Your task to perform on an android device: open app "Google Play Games" (install if not already installed) Image 0: 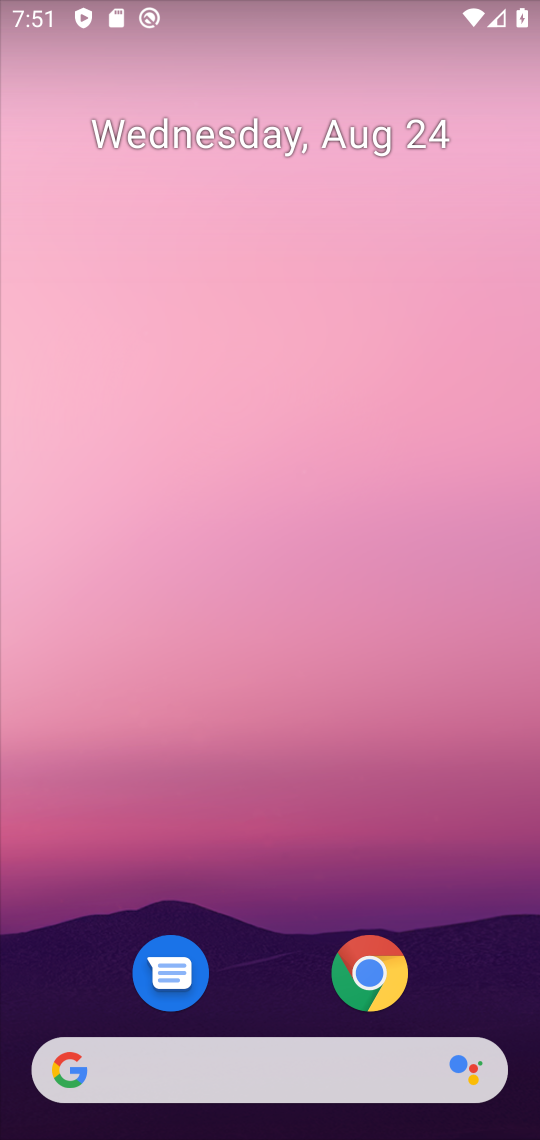
Step 0: drag from (239, 841) to (238, 169)
Your task to perform on an android device: open app "Google Play Games" (install if not already installed) Image 1: 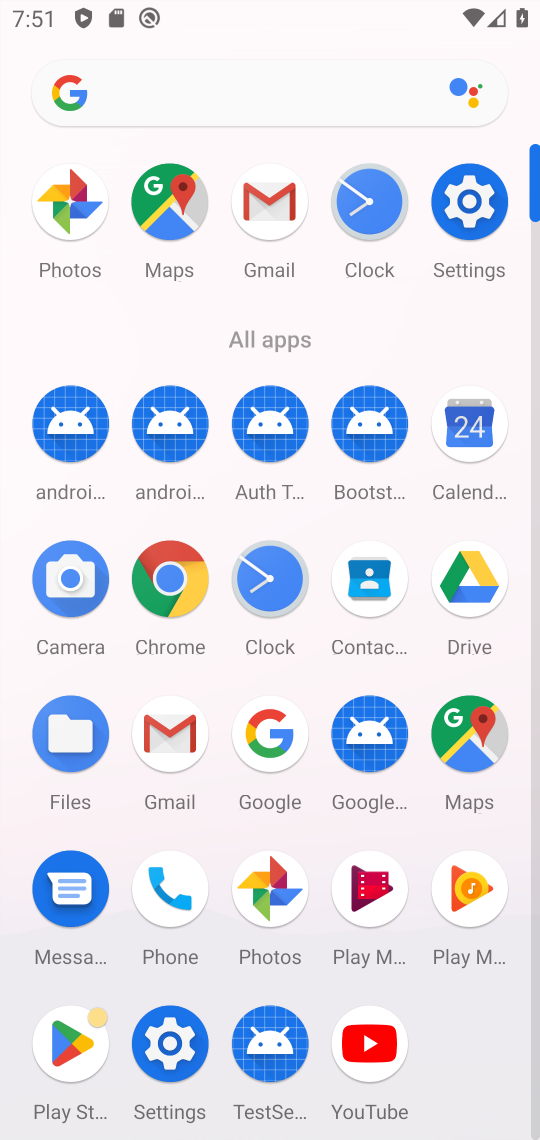
Step 1: click (74, 1044)
Your task to perform on an android device: open app "Google Play Games" (install if not already installed) Image 2: 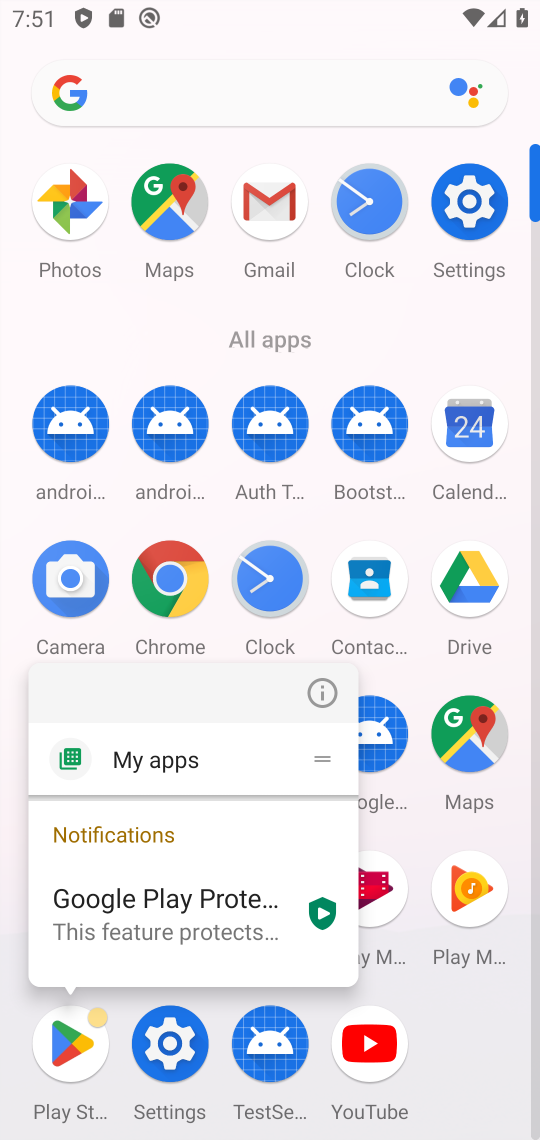
Step 2: click (60, 1072)
Your task to perform on an android device: open app "Google Play Games" (install if not already installed) Image 3: 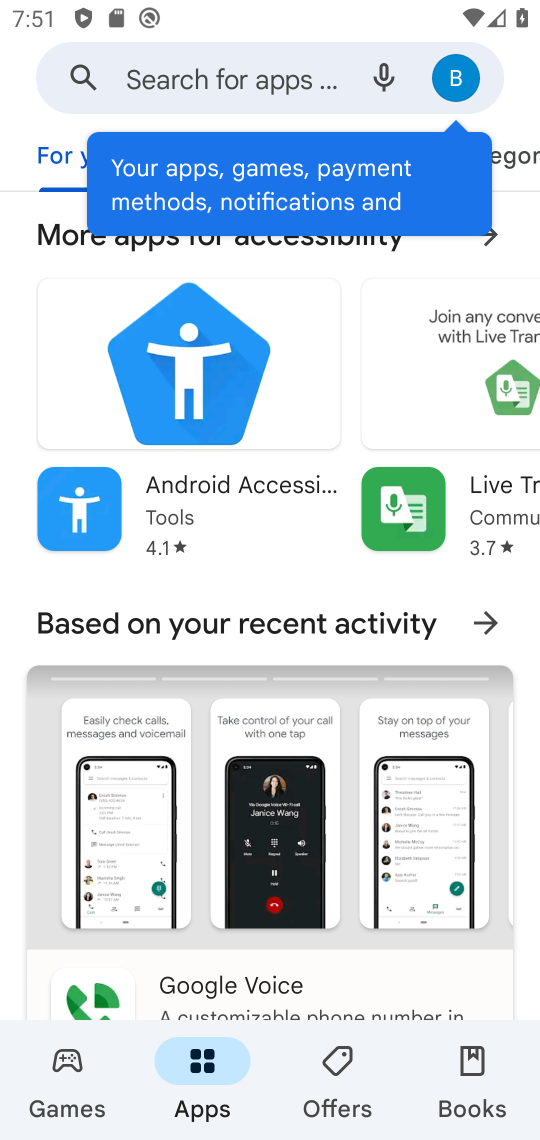
Step 3: click (207, 67)
Your task to perform on an android device: open app "Google Play Games" (install if not already installed) Image 4: 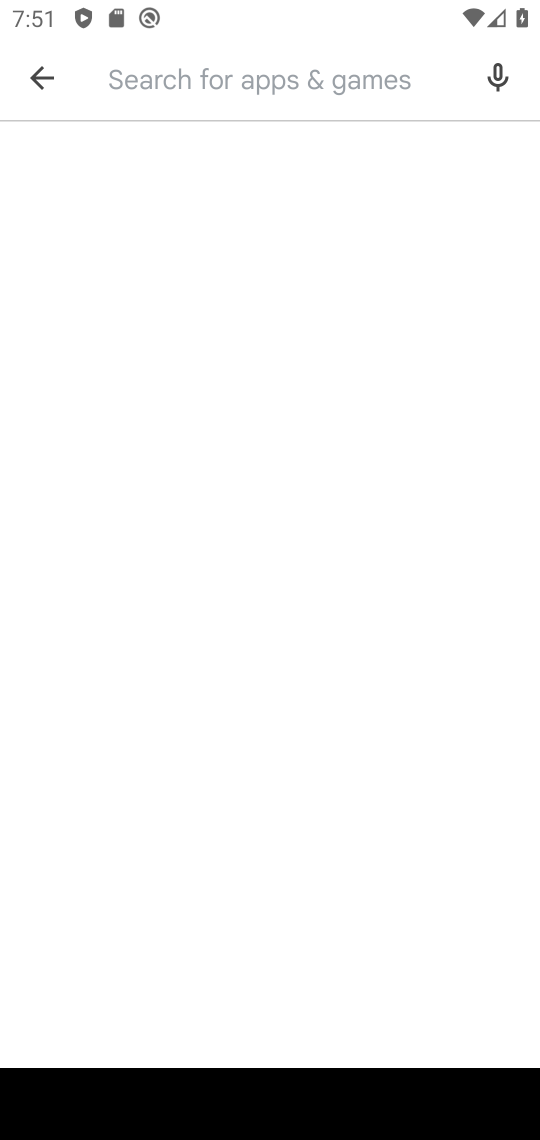
Step 4: type "Google Play Games"
Your task to perform on an android device: open app "Google Play Games" (install if not already installed) Image 5: 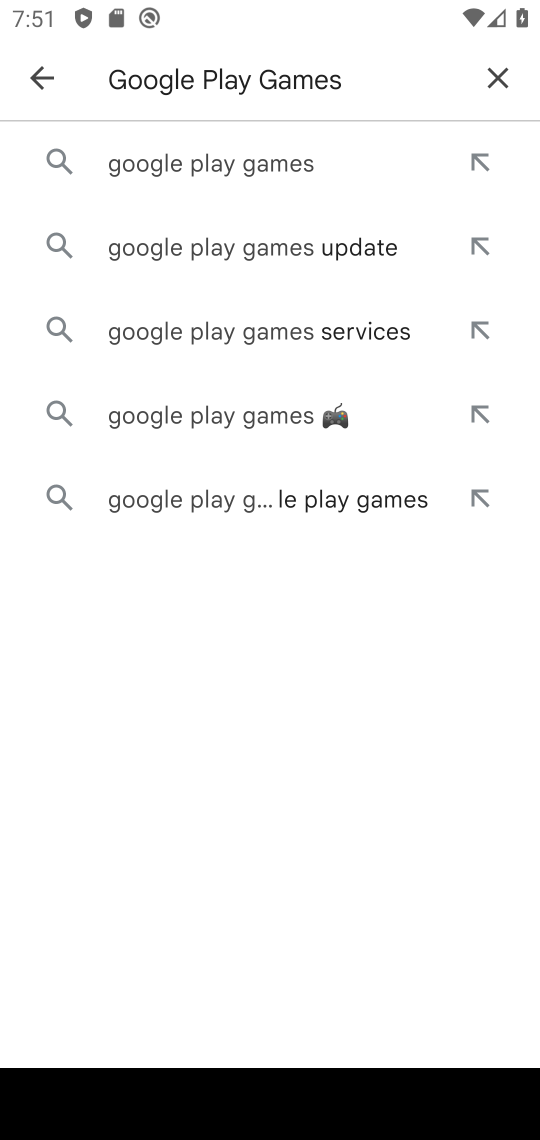
Step 5: click (208, 164)
Your task to perform on an android device: open app "Google Play Games" (install if not already installed) Image 6: 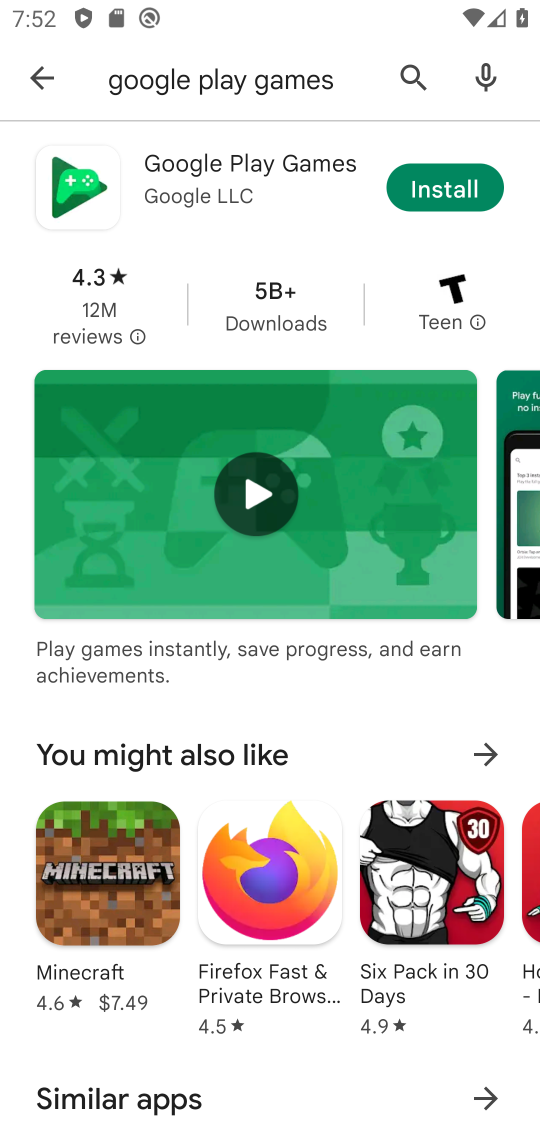
Step 6: click (448, 192)
Your task to perform on an android device: open app "Google Play Games" (install if not already installed) Image 7: 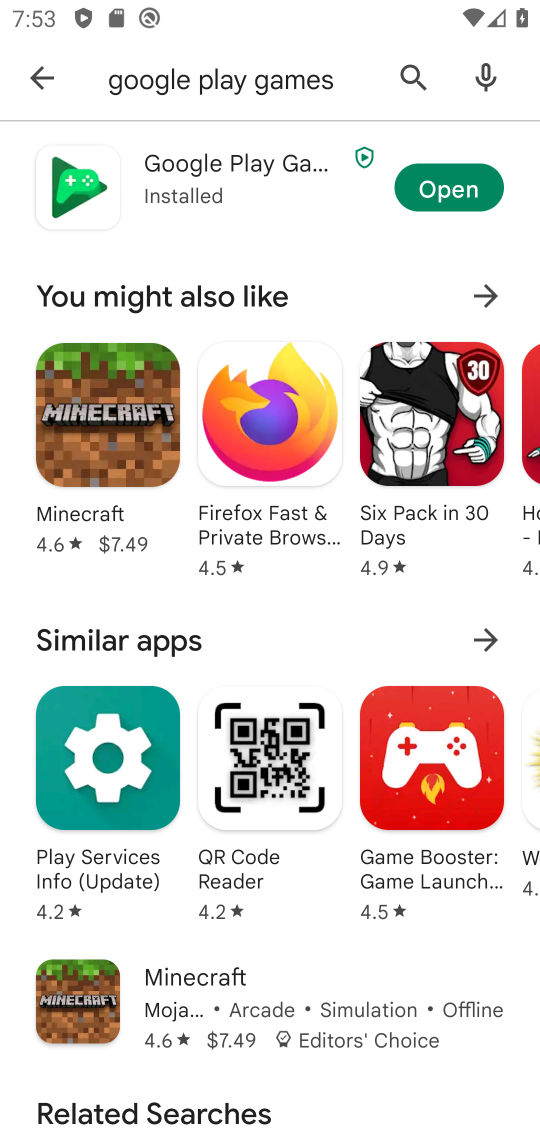
Step 7: click (453, 175)
Your task to perform on an android device: open app "Google Play Games" (install if not already installed) Image 8: 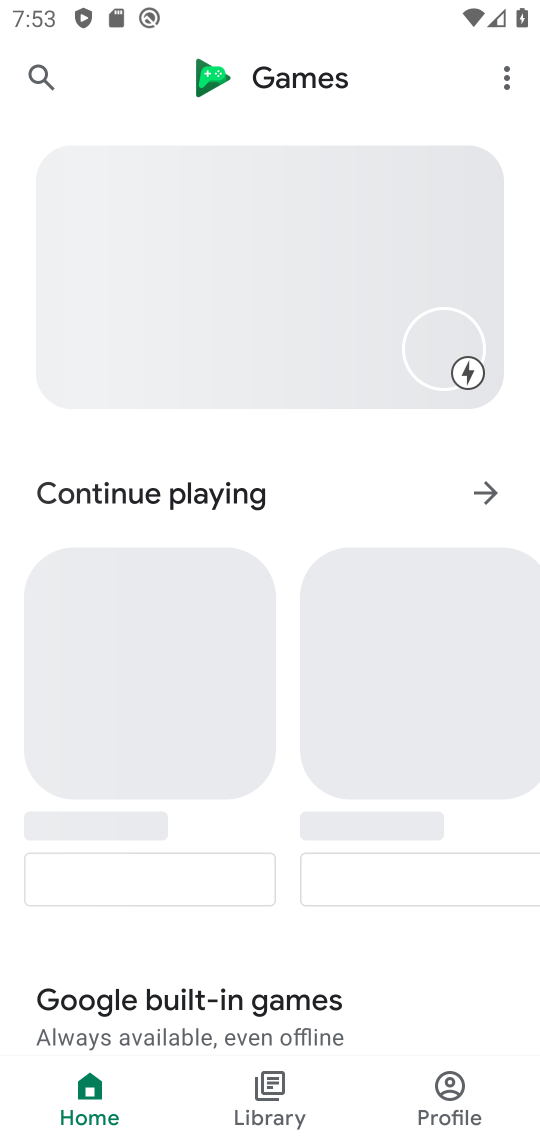
Step 8: task complete